Your task to perform on an android device: Go to ESPN.com Image 0: 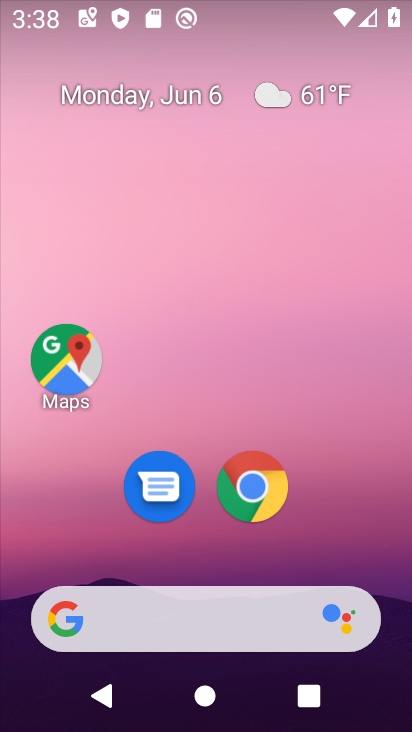
Step 0: click (250, 485)
Your task to perform on an android device: Go to ESPN.com Image 1: 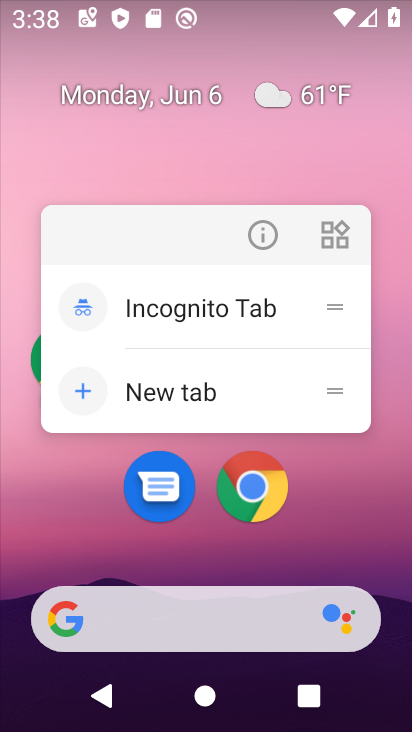
Step 1: click (252, 483)
Your task to perform on an android device: Go to ESPN.com Image 2: 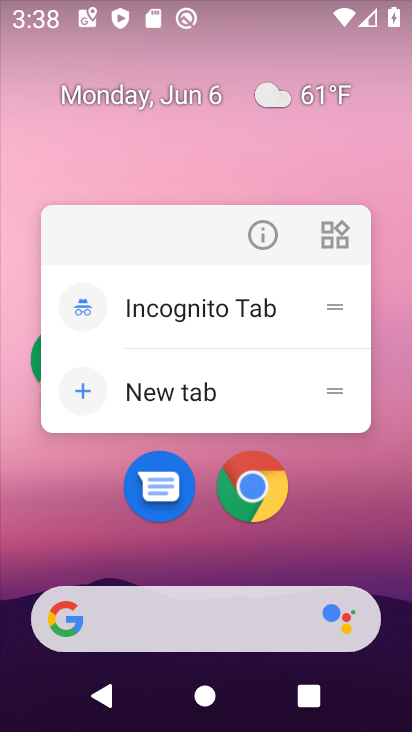
Step 2: click (266, 486)
Your task to perform on an android device: Go to ESPN.com Image 3: 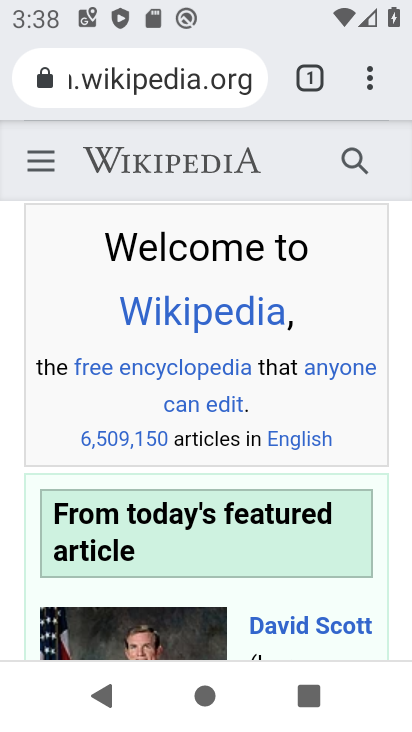
Step 3: click (199, 70)
Your task to perform on an android device: Go to ESPN.com Image 4: 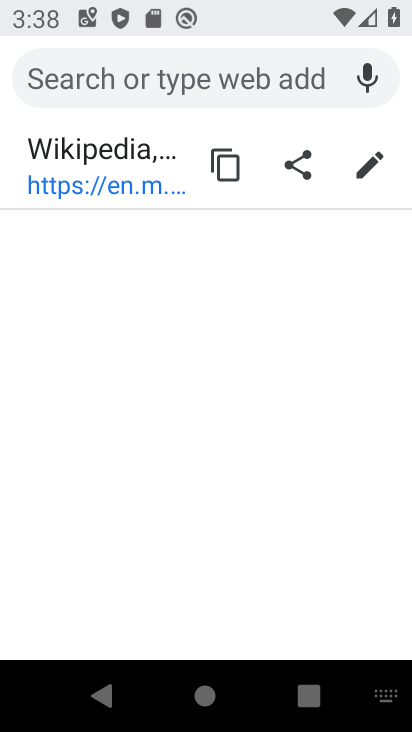
Step 4: type "espn.com"
Your task to perform on an android device: Go to ESPN.com Image 5: 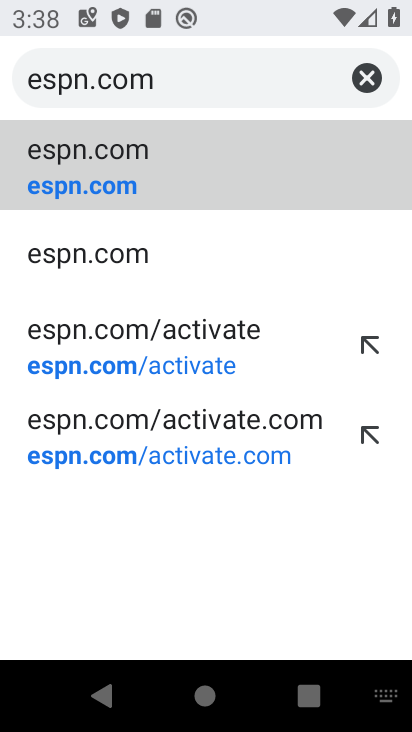
Step 5: click (106, 184)
Your task to perform on an android device: Go to ESPN.com Image 6: 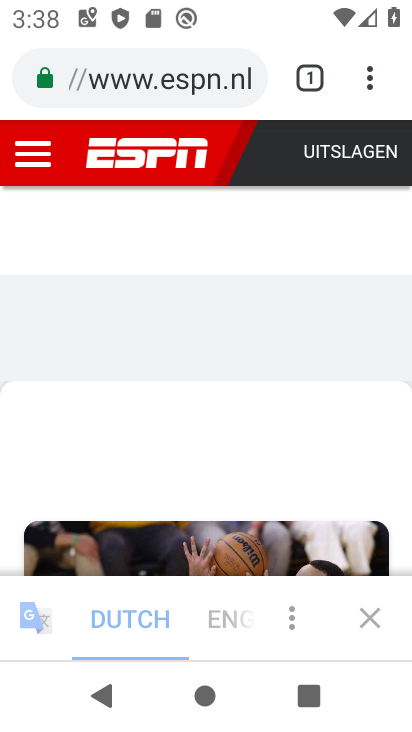
Step 6: task complete